Your task to perform on an android device: Open the Play Movies app and select the watchlist tab. Image 0: 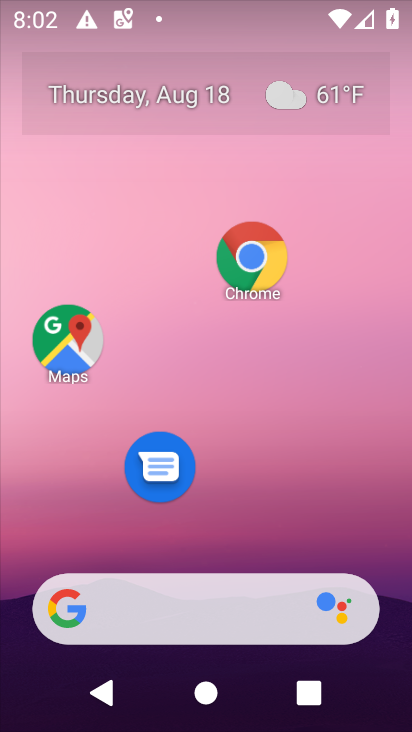
Step 0: task complete